Your task to perform on an android device: toggle data saver in the chrome app Image 0: 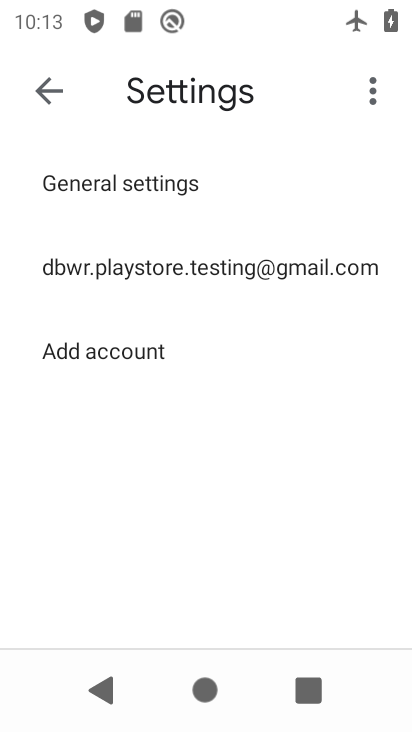
Step 0: click (28, 109)
Your task to perform on an android device: toggle data saver in the chrome app Image 1: 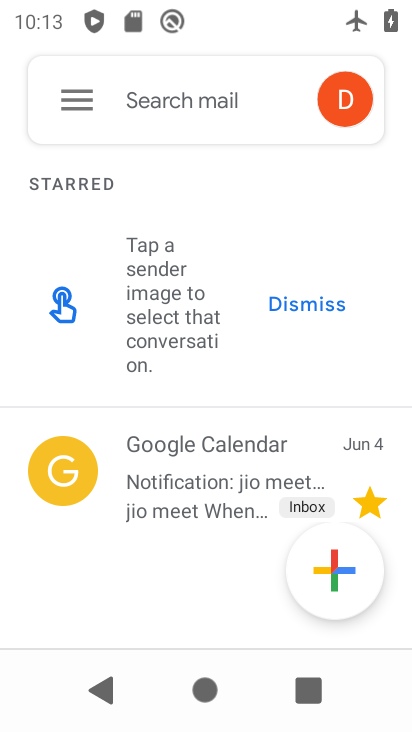
Step 1: press home button
Your task to perform on an android device: toggle data saver in the chrome app Image 2: 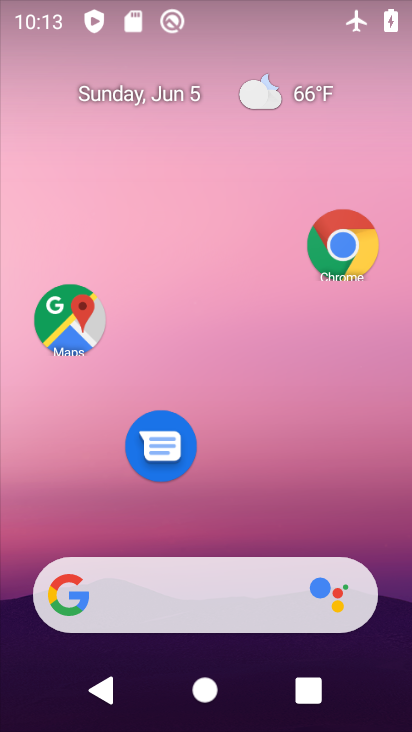
Step 2: click (327, 260)
Your task to perform on an android device: toggle data saver in the chrome app Image 3: 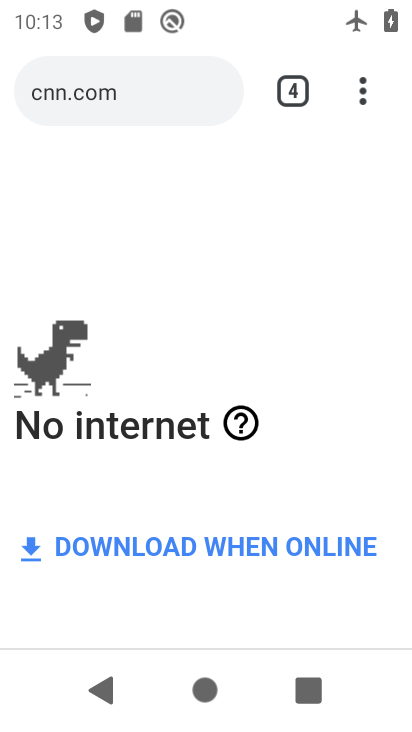
Step 3: drag from (357, 86) to (130, 490)
Your task to perform on an android device: toggle data saver in the chrome app Image 4: 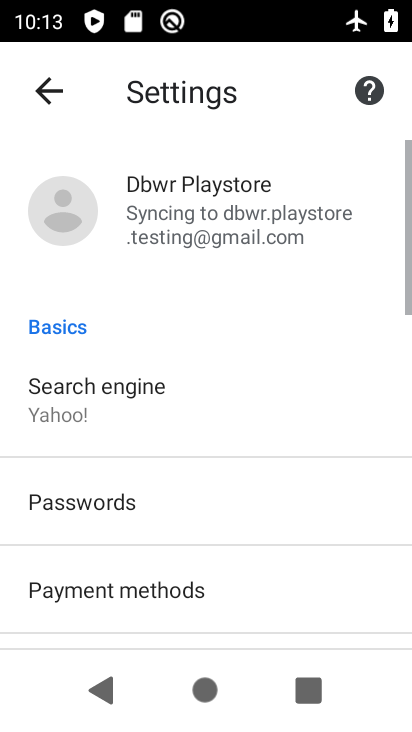
Step 4: drag from (222, 529) to (252, 237)
Your task to perform on an android device: toggle data saver in the chrome app Image 5: 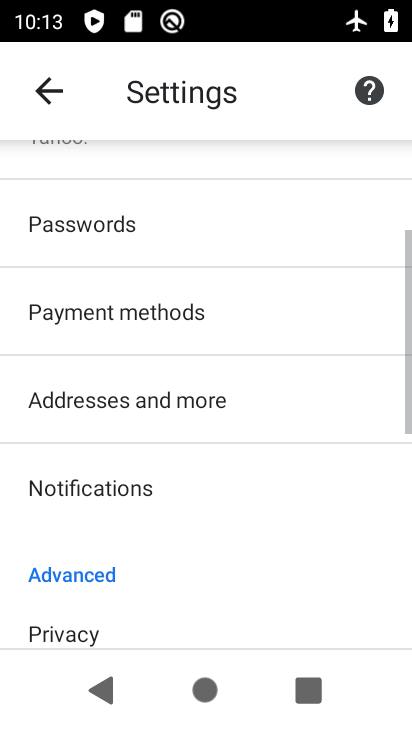
Step 5: drag from (246, 486) to (247, 314)
Your task to perform on an android device: toggle data saver in the chrome app Image 6: 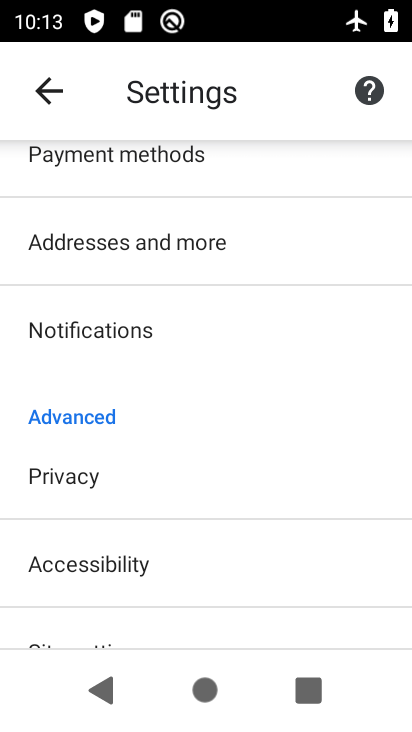
Step 6: drag from (237, 544) to (248, 321)
Your task to perform on an android device: toggle data saver in the chrome app Image 7: 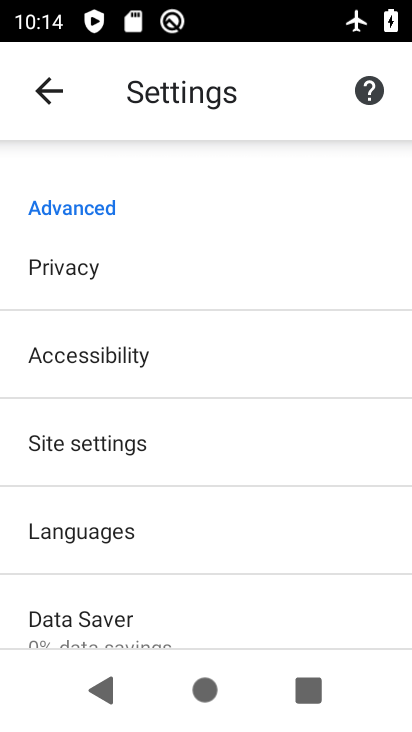
Step 7: click (149, 615)
Your task to perform on an android device: toggle data saver in the chrome app Image 8: 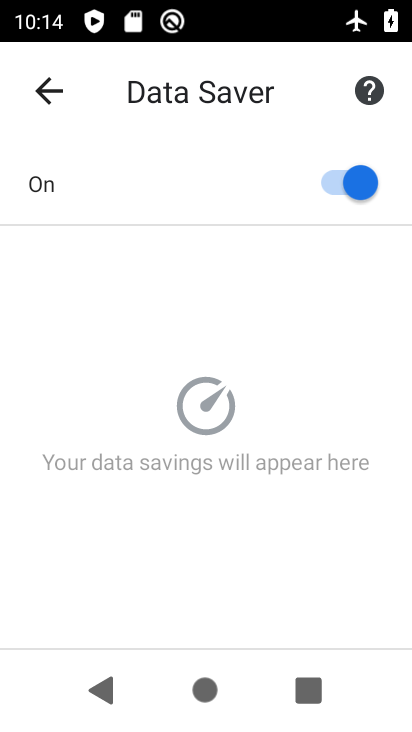
Step 8: click (339, 182)
Your task to perform on an android device: toggle data saver in the chrome app Image 9: 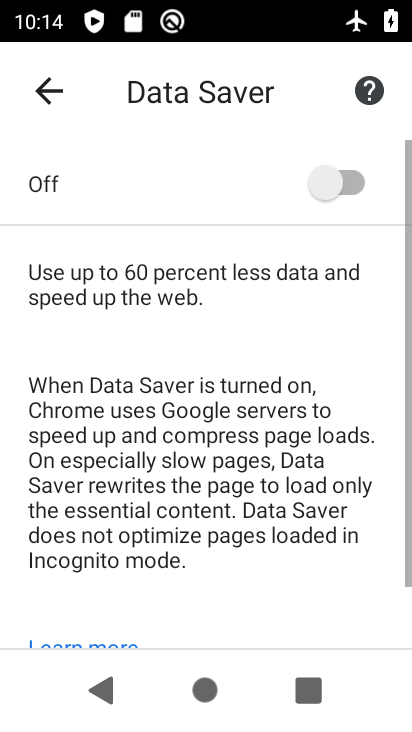
Step 9: task complete